Your task to perform on an android device: Go to eBay Image 0: 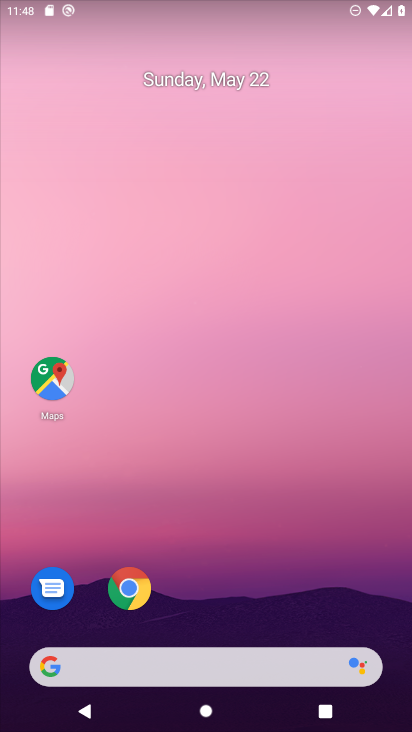
Step 0: drag from (231, 691) to (146, 109)
Your task to perform on an android device: Go to eBay Image 1: 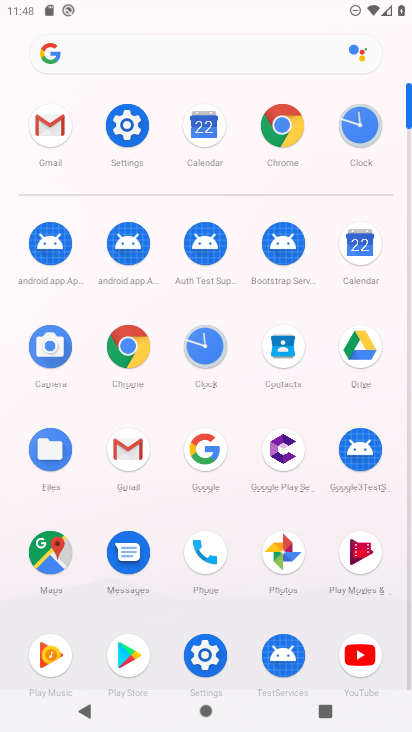
Step 1: click (274, 129)
Your task to perform on an android device: Go to eBay Image 2: 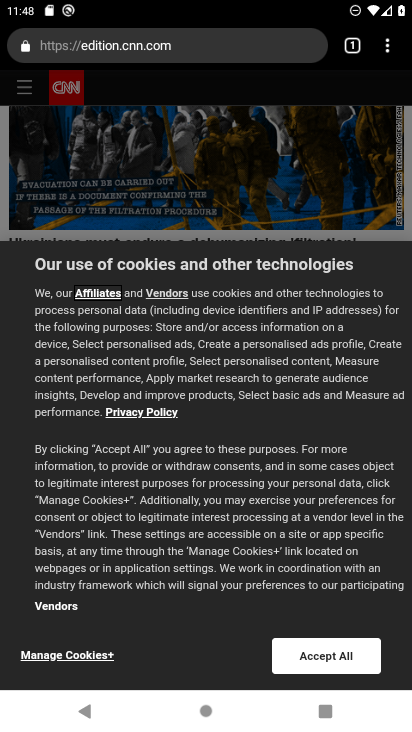
Step 2: click (195, 43)
Your task to perform on an android device: Go to eBay Image 3: 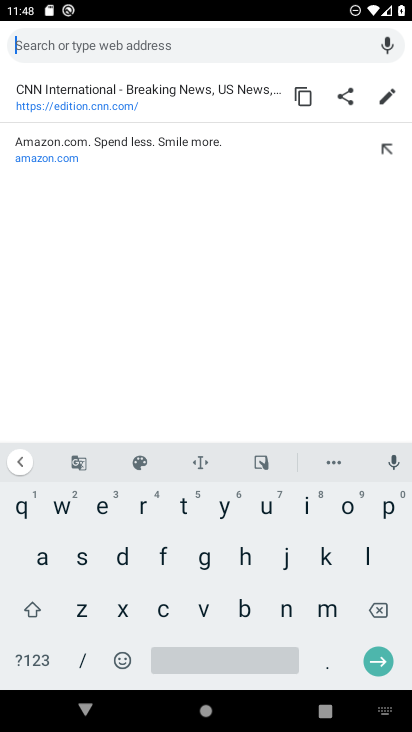
Step 3: click (94, 501)
Your task to perform on an android device: Go to eBay Image 4: 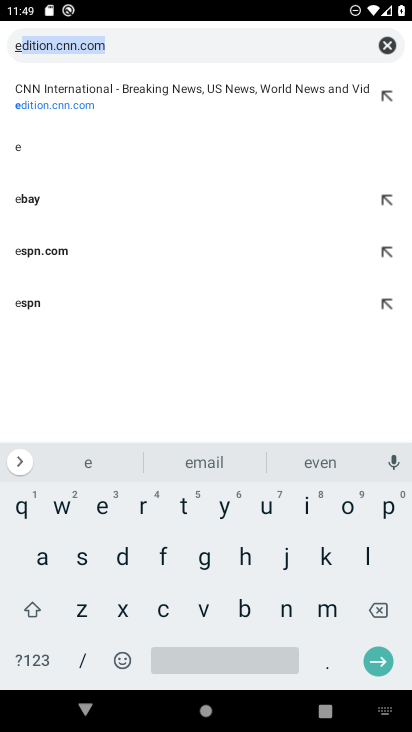
Step 4: click (61, 189)
Your task to perform on an android device: Go to eBay Image 5: 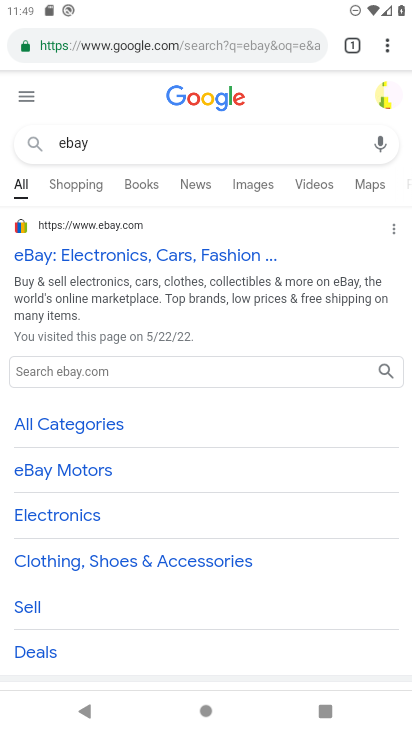
Step 5: click (60, 256)
Your task to perform on an android device: Go to eBay Image 6: 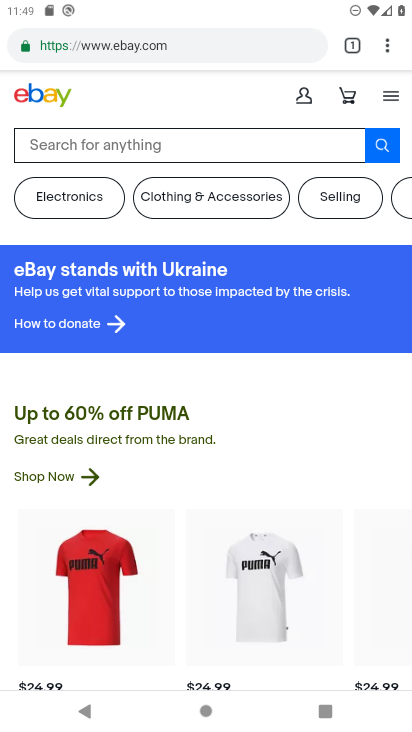
Step 6: task complete